Your task to perform on an android device: toggle location history Image 0: 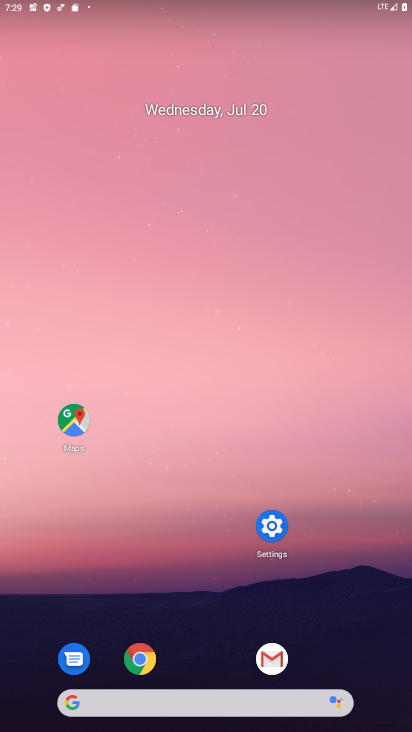
Step 0: click (268, 532)
Your task to perform on an android device: toggle location history Image 1: 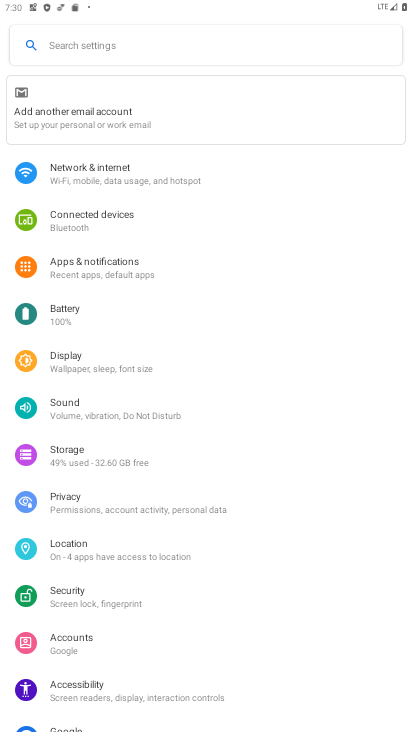
Step 1: click (96, 560)
Your task to perform on an android device: toggle location history Image 2: 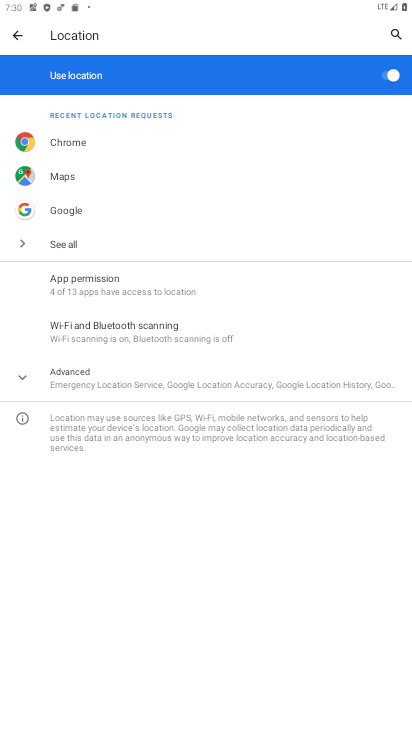
Step 2: click (33, 379)
Your task to perform on an android device: toggle location history Image 3: 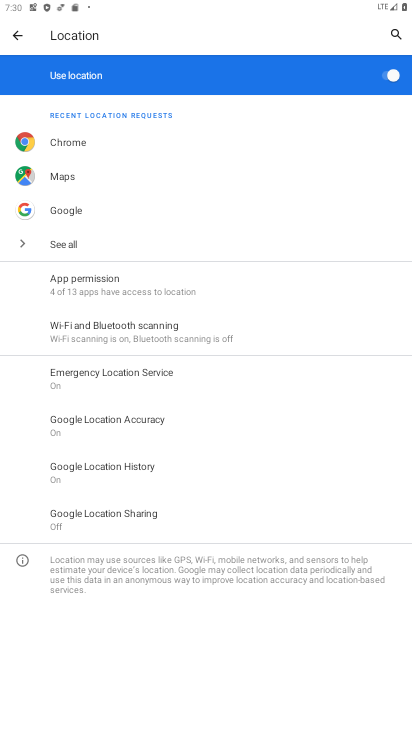
Step 3: click (157, 468)
Your task to perform on an android device: toggle location history Image 4: 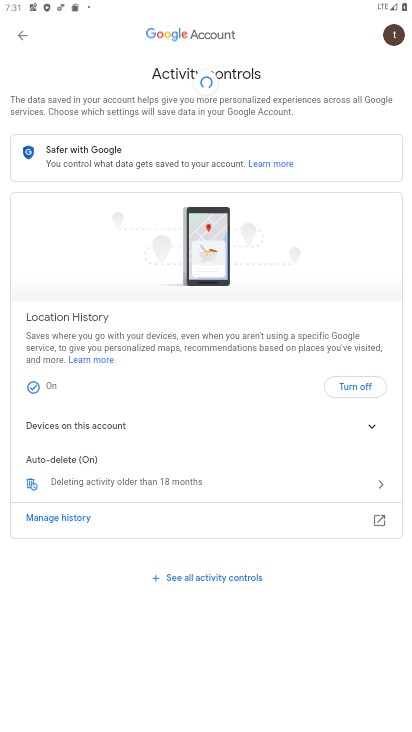
Step 4: task complete